Your task to perform on an android device: Show me the alarms in the clock app Image 0: 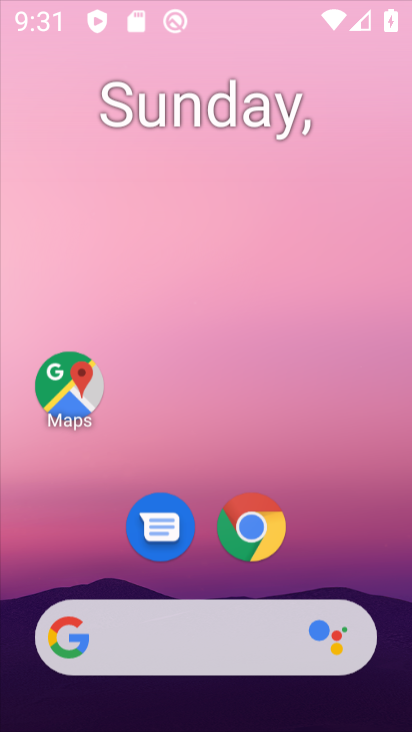
Step 0: click (63, 396)
Your task to perform on an android device: Show me the alarms in the clock app Image 1: 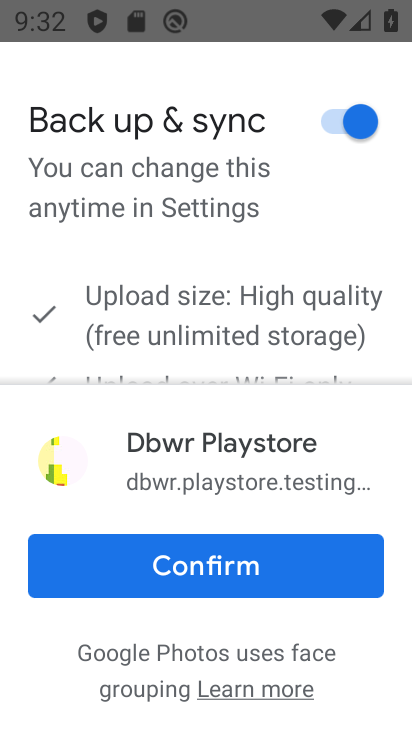
Step 1: click (213, 564)
Your task to perform on an android device: Show me the alarms in the clock app Image 2: 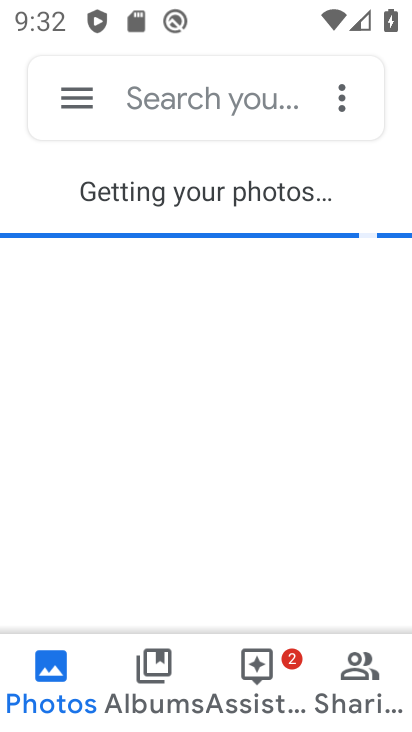
Step 2: press home button
Your task to perform on an android device: Show me the alarms in the clock app Image 3: 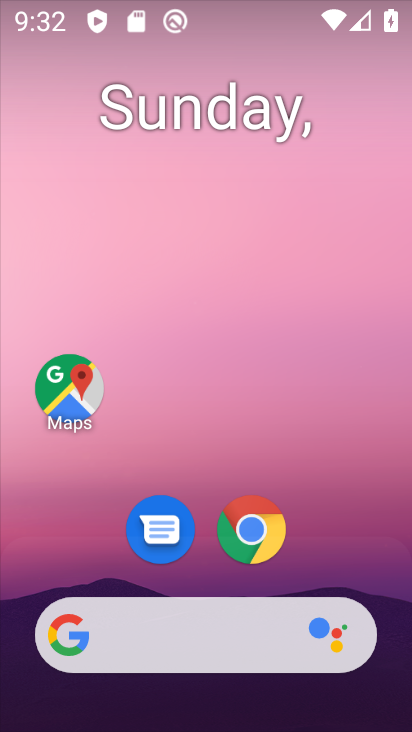
Step 3: drag from (319, 507) to (256, 85)
Your task to perform on an android device: Show me the alarms in the clock app Image 4: 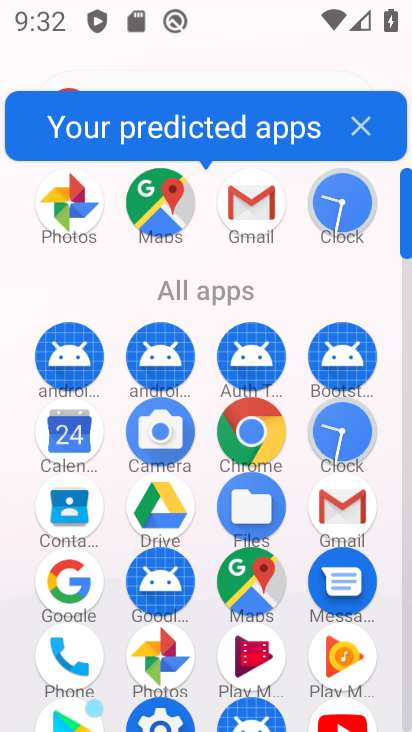
Step 4: click (341, 429)
Your task to perform on an android device: Show me the alarms in the clock app Image 5: 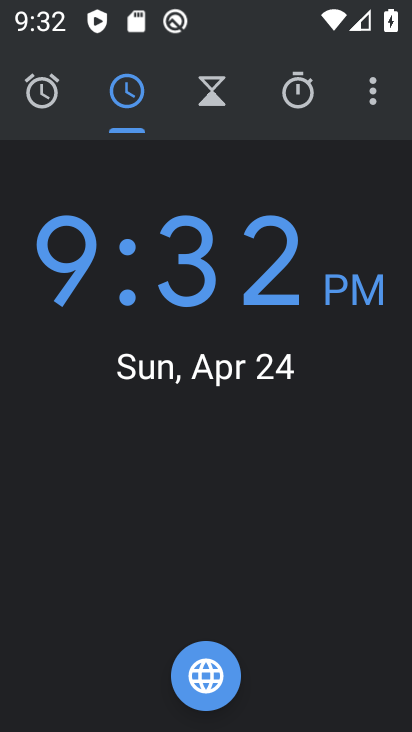
Step 5: click (38, 97)
Your task to perform on an android device: Show me the alarms in the clock app Image 6: 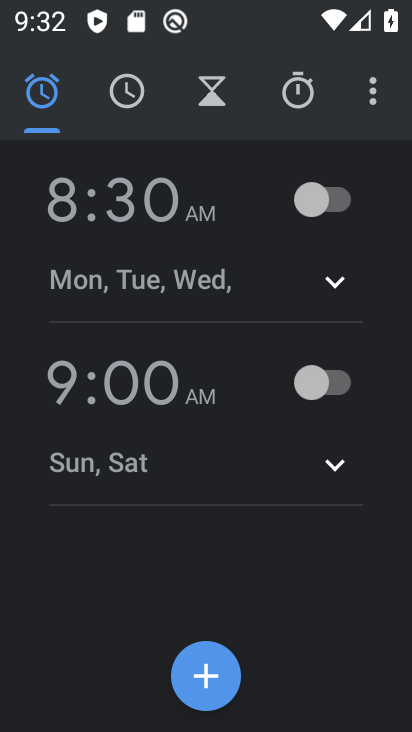
Step 6: task complete